Your task to perform on an android device: Search for acer nitro on target, select the first entry, add it to the cart, then select checkout. Image 0: 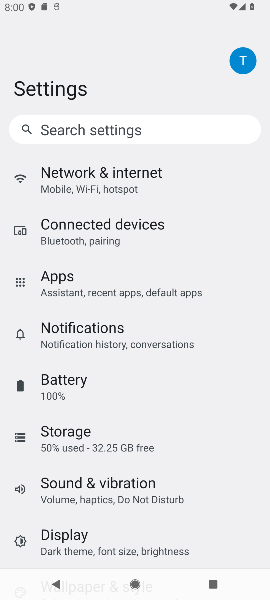
Step 0: press home button
Your task to perform on an android device: Search for acer nitro on target, select the first entry, add it to the cart, then select checkout. Image 1: 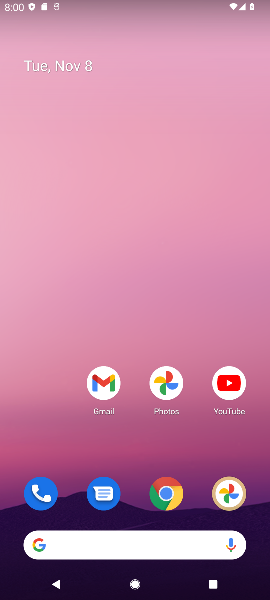
Step 1: click (162, 494)
Your task to perform on an android device: Search for acer nitro on target, select the first entry, add it to the cart, then select checkout. Image 2: 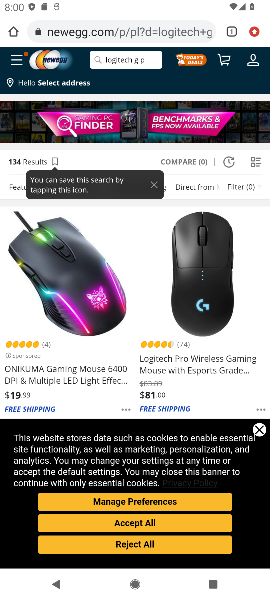
Step 2: click (106, 29)
Your task to perform on an android device: Search for acer nitro on target, select the first entry, add it to the cart, then select checkout. Image 3: 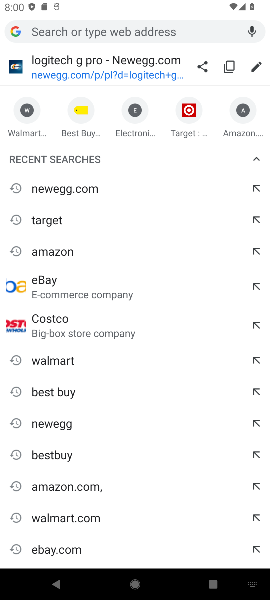
Step 3: click (186, 108)
Your task to perform on an android device: Search for acer nitro on target, select the first entry, add it to the cart, then select checkout. Image 4: 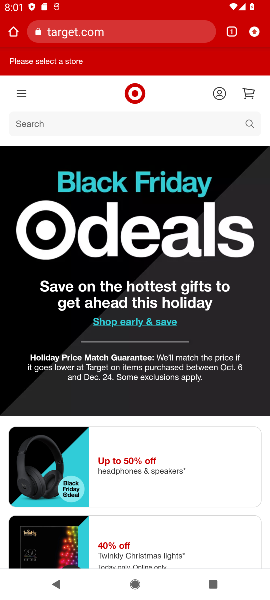
Step 4: click (250, 124)
Your task to perform on an android device: Search for acer nitro on target, select the first entry, add it to the cart, then select checkout. Image 5: 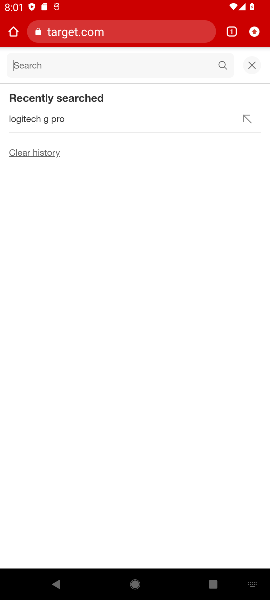
Step 5: type "acer nitro"
Your task to perform on an android device: Search for acer nitro on target, select the first entry, add it to the cart, then select checkout. Image 6: 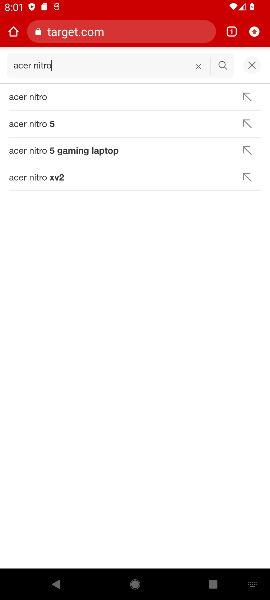
Step 6: click (25, 97)
Your task to perform on an android device: Search for acer nitro on target, select the first entry, add it to the cart, then select checkout. Image 7: 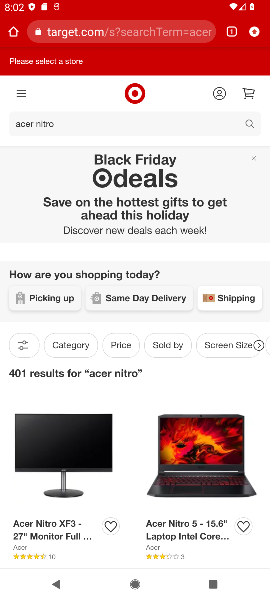
Step 7: drag from (132, 353) to (132, 240)
Your task to perform on an android device: Search for acer nitro on target, select the first entry, add it to the cart, then select checkout. Image 8: 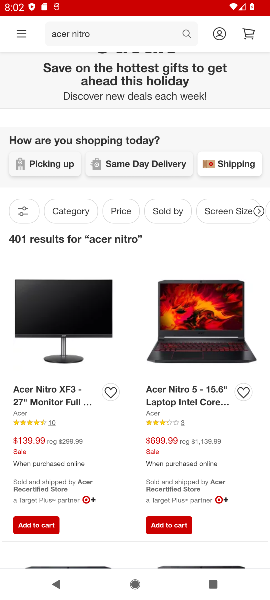
Step 8: click (33, 526)
Your task to perform on an android device: Search for acer nitro on target, select the first entry, add it to the cart, then select checkout. Image 9: 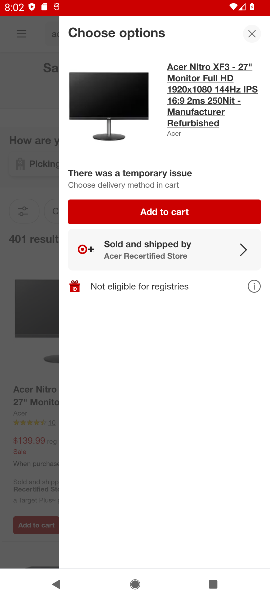
Step 9: click (152, 213)
Your task to perform on an android device: Search for acer nitro on target, select the first entry, add it to the cart, then select checkout. Image 10: 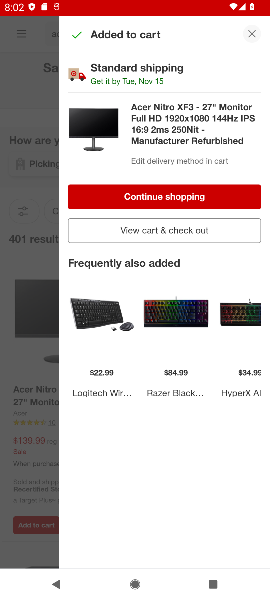
Step 10: click (151, 225)
Your task to perform on an android device: Search for acer nitro on target, select the first entry, add it to the cart, then select checkout. Image 11: 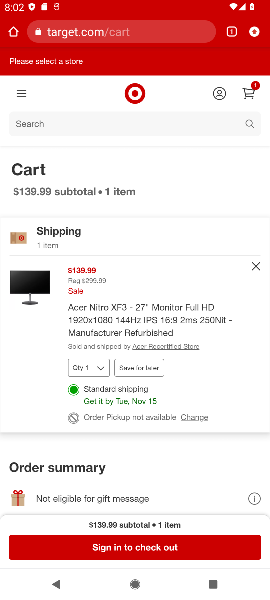
Step 11: click (115, 551)
Your task to perform on an android device: Search for acer nitro on target, select the first entry, add it to the cart, then select checkout. Image 12: 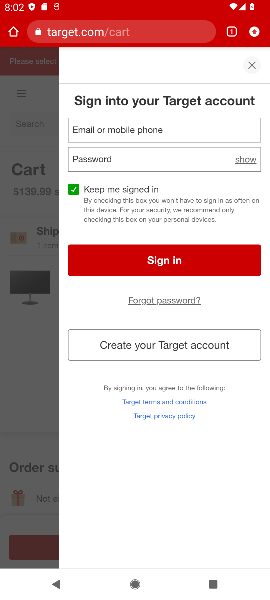
Step 12: task complete